Your task to perform on an android device: Go to notification settings Image 0: 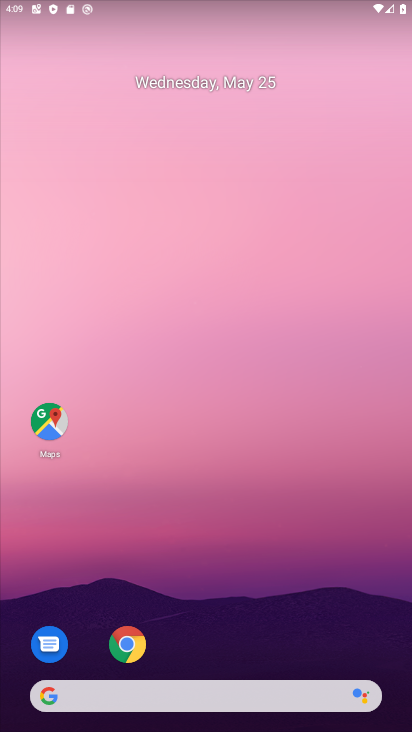
Step 0: drag from (262, 630) to (279, 5)
Your task to perform on an android device: Go to notification settings Image 1: 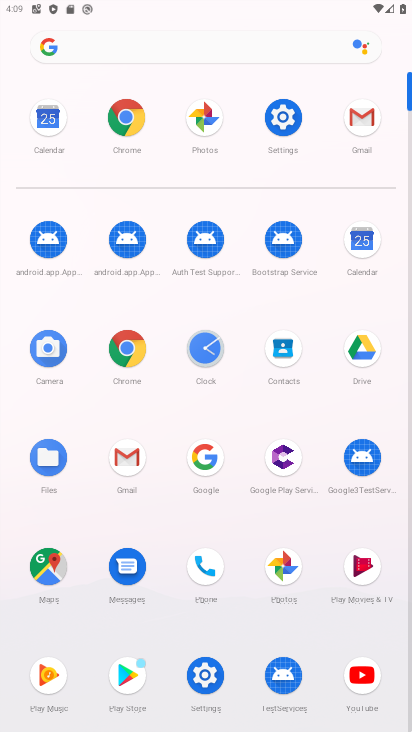
Step 1: click (276, 126)
Your task to perform on an android device: Go to notification settings Image 2: 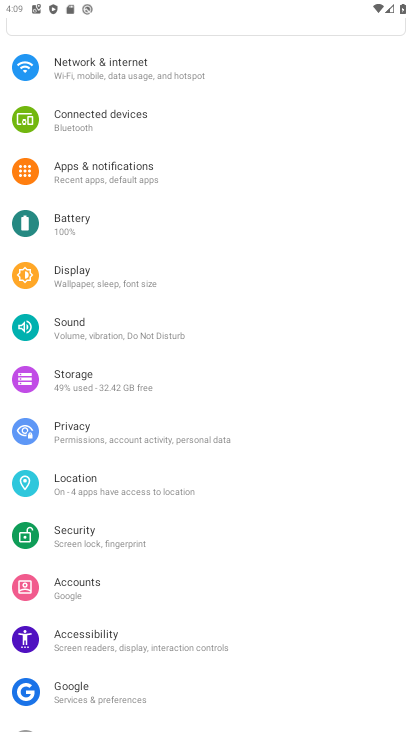
Step 2: click (105, 168)
Your task to perform on an android device: Go to notification settings Image 3: 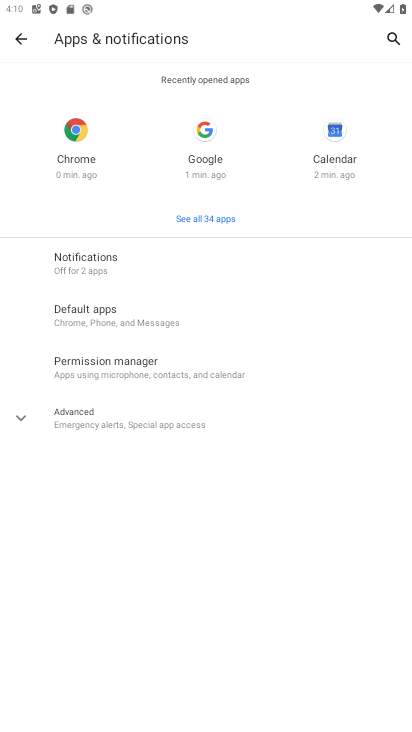
Step 3: task complete